Your task to perform on an android device: Play the last video I watched on Youtube Image 0: 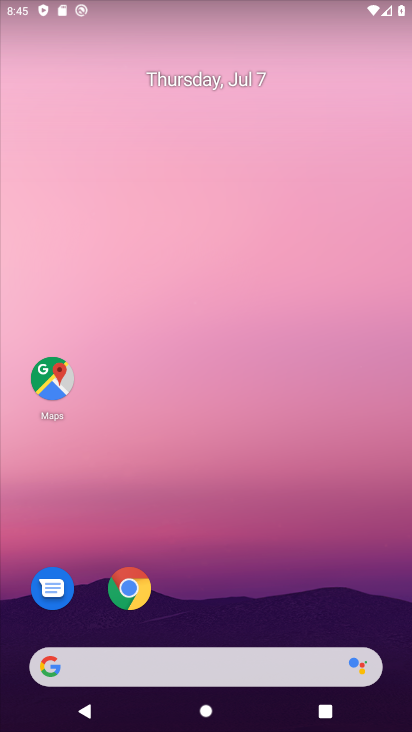
Step 0: click (222, 15)
Your task to perform on an android device: Play the last video I watched on Youtube Image 1: 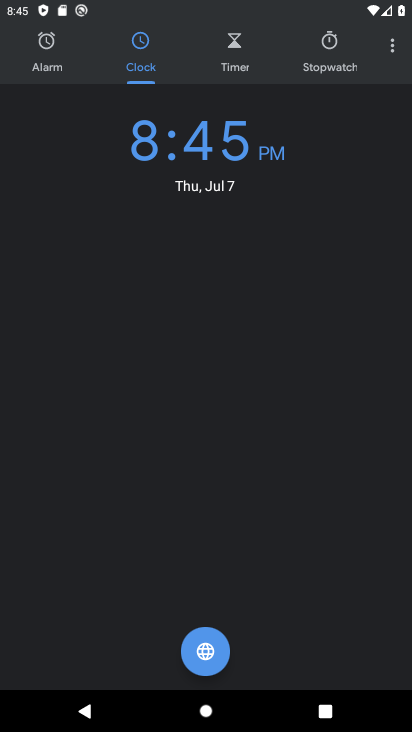
Step 1: press home button
Your task to perform on an android device: Play the last video I watched on Youtube Image 2: 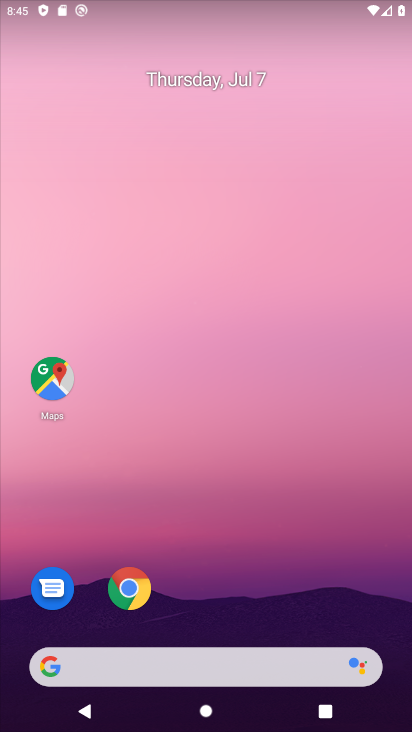
Step 2: drag from (232, 609) to (260, 55)
Your task to perform on an android device: Play the last video I watched on Youtube Image 3: 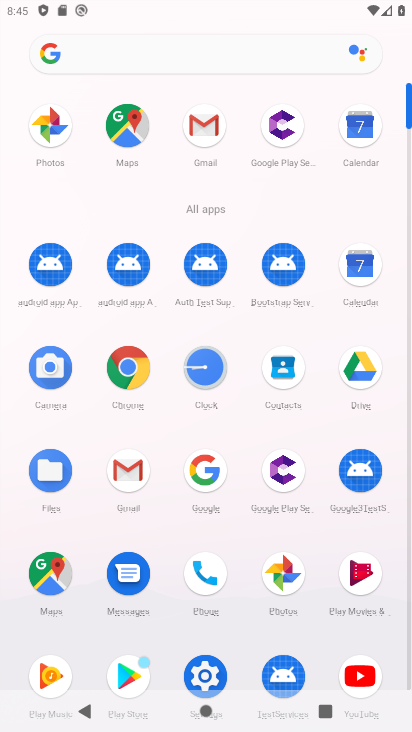
Step 3: click (356, 669)
Your task to perform on an android device: Play the last video I watched on Youtube Image 4: 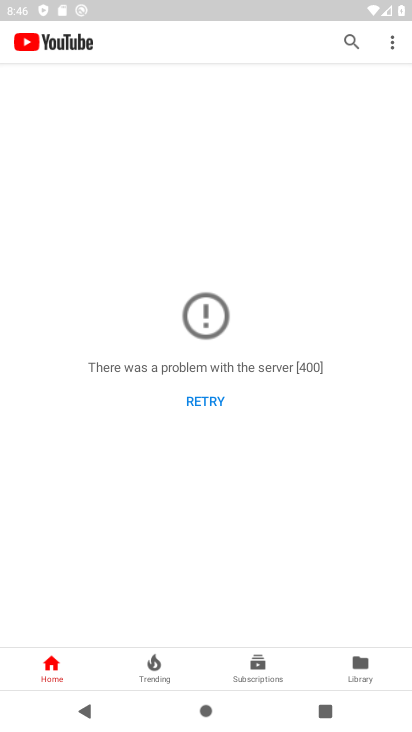
Step 4: click (360, 662)
Your task to perform on an android device: Play the last video I watched on Youtube Image 5: 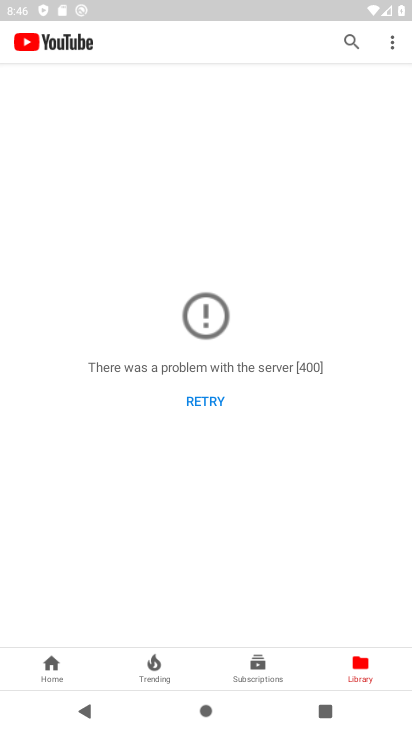
Step 5: task complete